Your task to perform on an android device: turn off priority inbox in the gmail app Image 0: 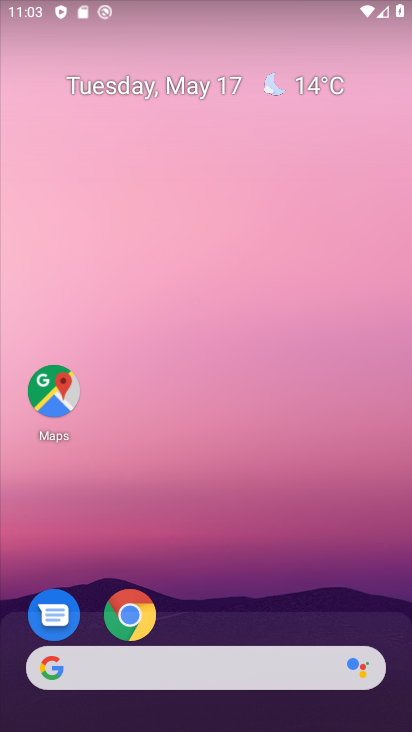
Step 0: drag from (307, 589) to (270, 142)
Your task to perform on an android device: turn off priority inbox in the gmail app Image 1: 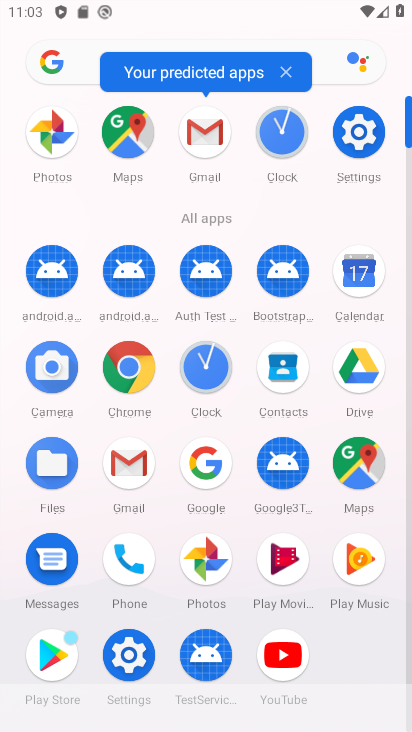
Step 1: click (347, 131)
Your task to perform on an android device: turn off priority inbox in the gmail app Image 2: 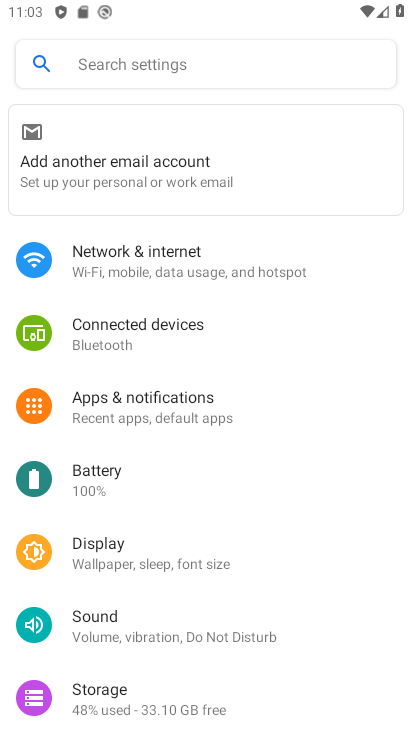
Step 2: press home button
Your task to perform on an android device: turn off priority inbox in the gmail app Image 3: 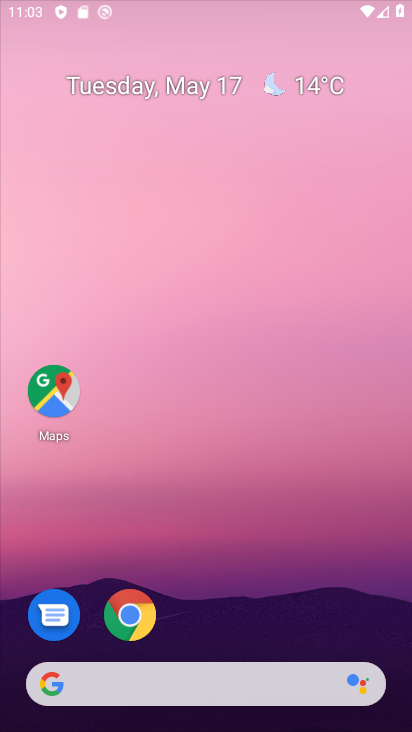
Step 3: drag from (314, 571) to (300, 90)
Your task to perform on an android device: turn off priority inbox in the gmail app Image 4: 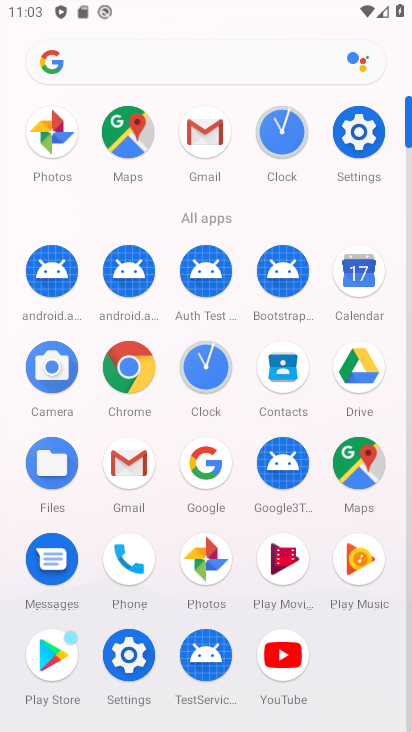
Step 4: click (210, 138)
Your task to perform on an android device: turn off priority inbox in the gmail app Image 5: 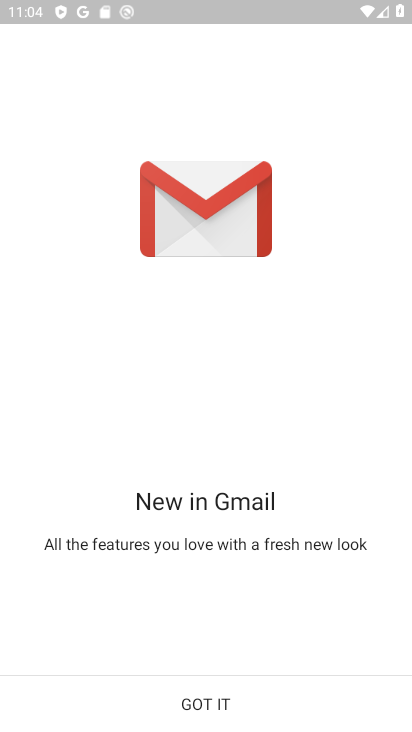
Step 5: click (236, 712)
Your task to perform on an android device: turn off priority inbox in the gmail app Image 6: 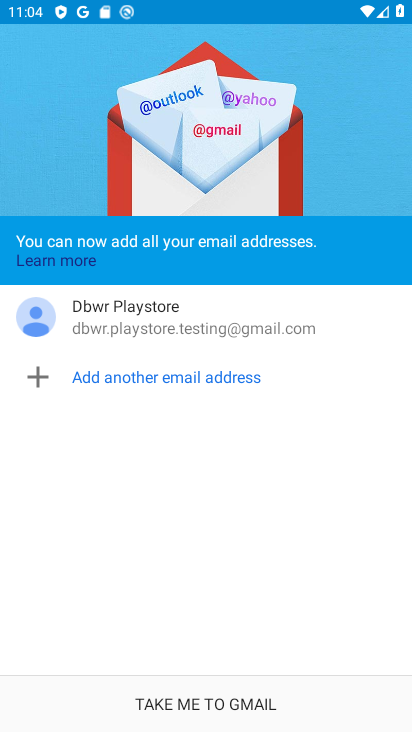
Step 6: click (219, 697)
Your task to perform on an android device: turn off priority inbox in the gmail app Image 7: 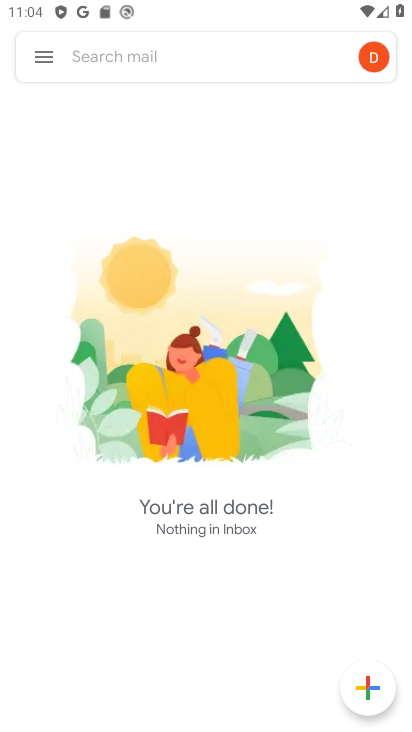
Step 7: click (40, 59)
Your task to perform on an android device: turn off priority inbox in the gmail app Image 8: 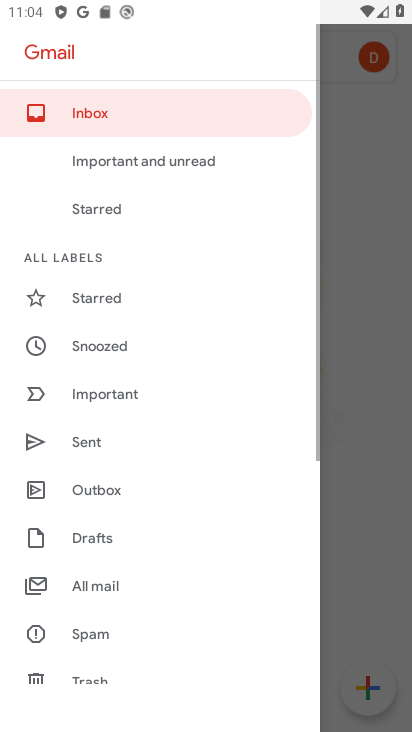
Step 8: drag from (128, 546) to (206, 120)
Your task to perform on an android device: turn off priority inbox in the gmail app Image 9: 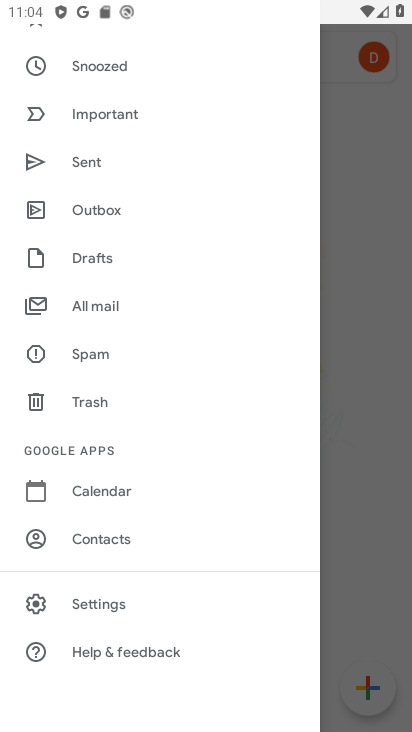
Step 9: click (110, 607)
Your task to perform on an android device: turn off priority inbox in the gmail app Image 10: 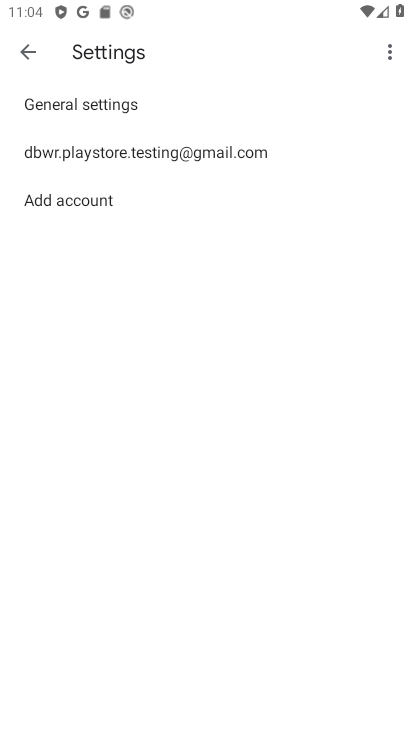
Step 10: click (238, 152)
Your task to perform on an android device: turn off priority inbox in the gmail app Image 11: 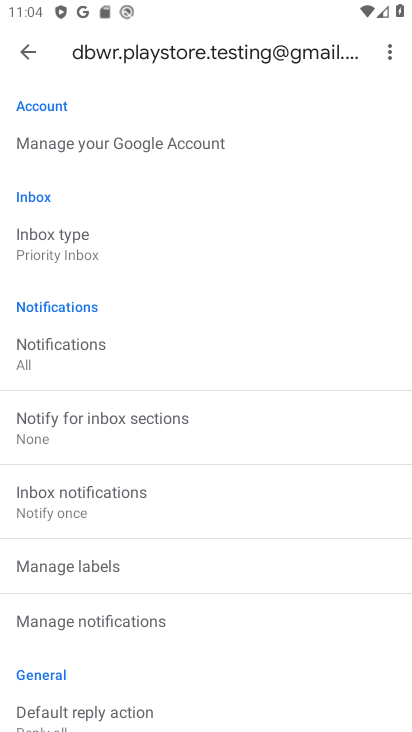
Step 11: click (77, 235)
Your task to perform on an android device: turn off priority inbox in the gmail app Image 12: 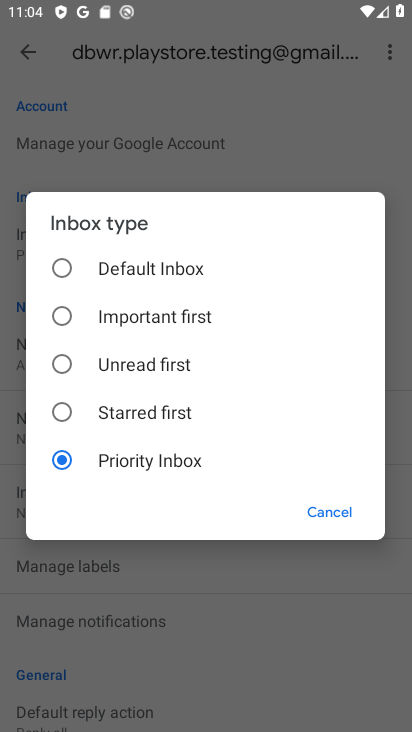
Step 12: task complete